Your task to perform on an android device: check google app version Image 0: 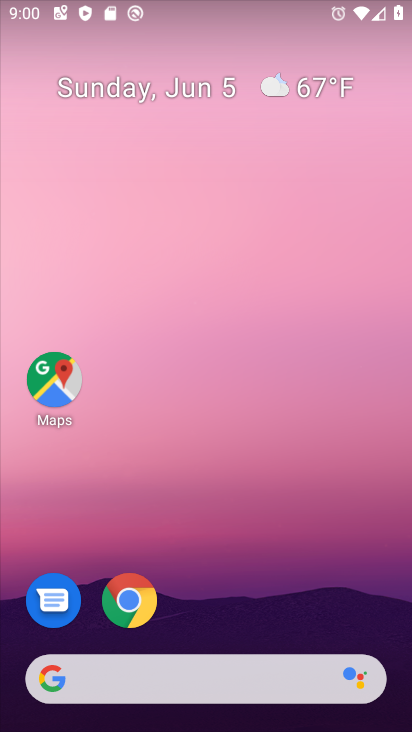
Step 0: drag from (367, 621) to (267, 26)
Your task to perform on an android device: check google app version Image 1: 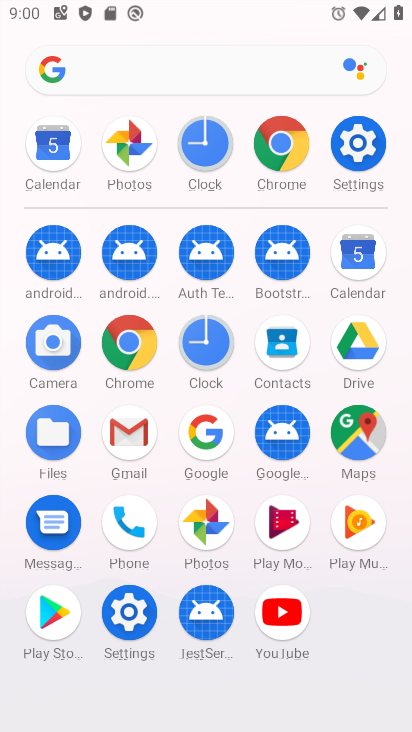
Step 1: click (217, 435)
Your task to perform on an android device: check google app version Image 2: 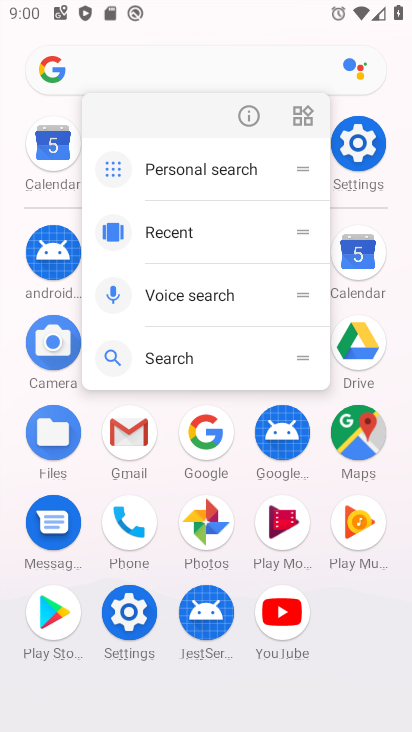
Step 2: click (253, 114)
Your task to perform on an android device: check google app version Image 3: 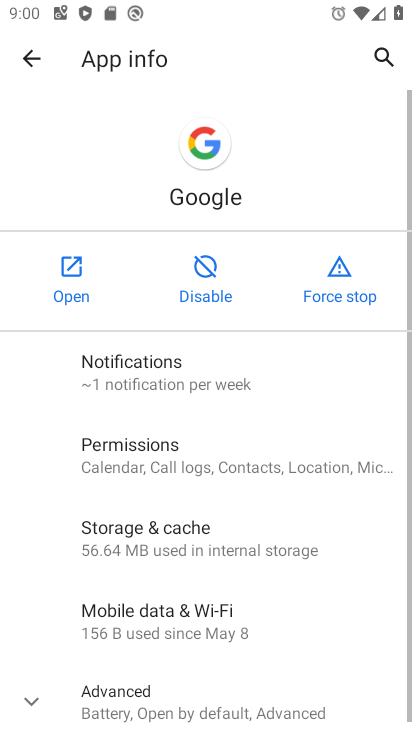
Step 3: drag from (280, 607) to (302, 41)
Your task to perform on an android device: check google app version Image 4: 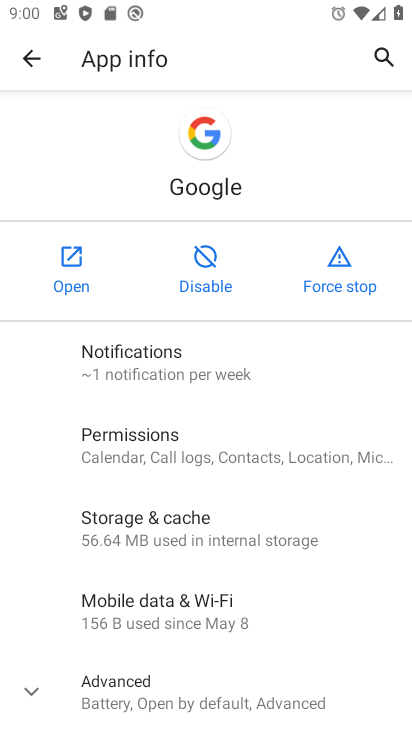
Step 4: click (143, 683)
Your task to perform on an android device: check google app version Image 5: 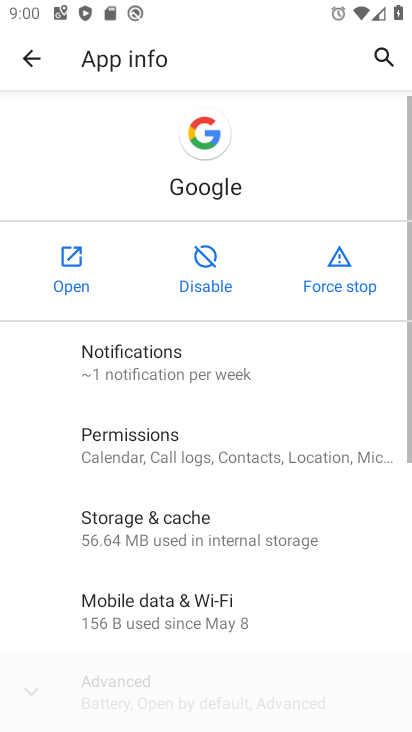
Step 5: drag from (218, 701) to (264, 650)
Your task to perform on an android device: check google app version Image 6: 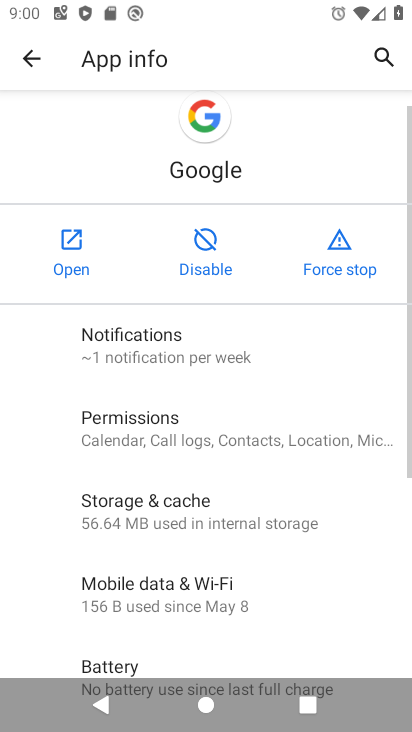
Step 6: click (322, 71)
Your task to perform on an android device: check google app version Image 7: 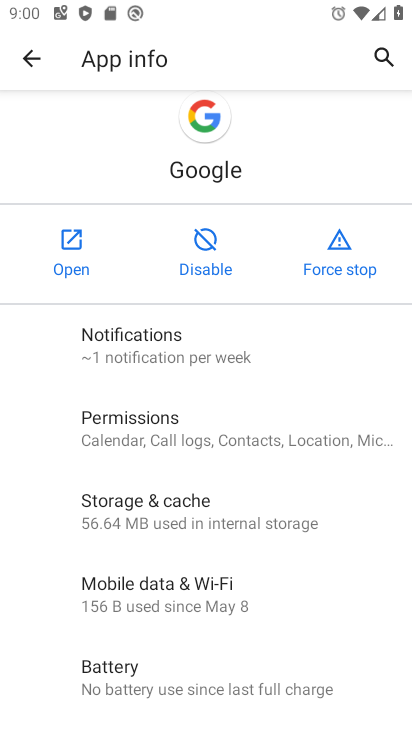
Step 7: task complete